Your task to perform on an android device: Open settings Image 0: 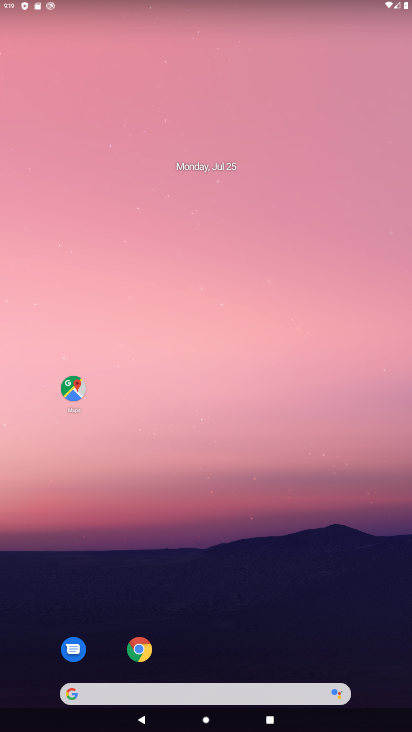
Step 0: drag from (297, 584) to (188, 4)
Your task to perform on an android device: Open settings Image 1: 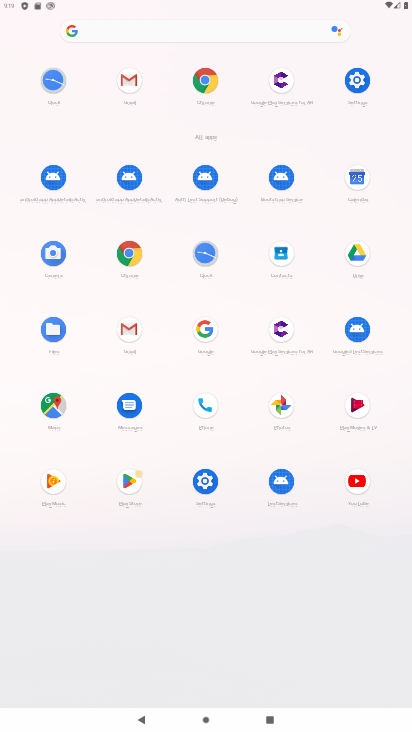
Step 1: click (359, 77)
Your task to perform on an android device: Open settings Image 2: 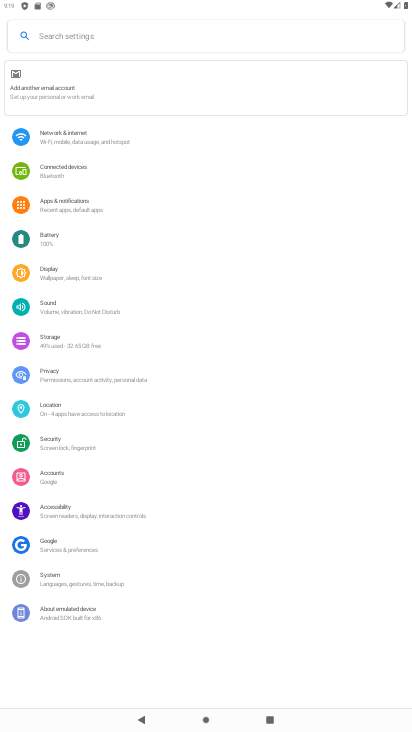
Step 2: task complete